Your task to perform on an android device: Search for logitech g pro on bestbuy.com, select the first entry, and add it to the cart. Image 0: 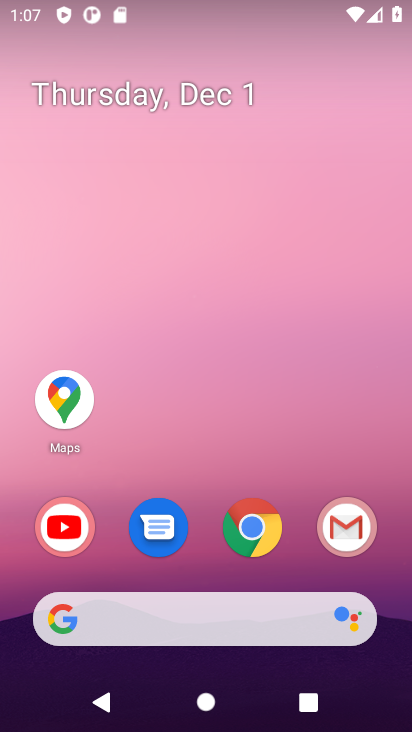
Step 0: click (248, 539)
Your task to perform on an android device: Search for logitech g pro on bestbuy.com, select the first entry, and add it to the cart. Image 1: 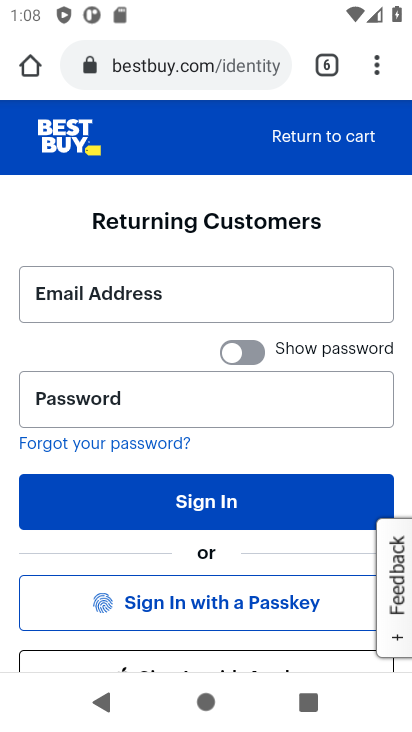
Step 1: press back button
Your task to perform on an android device: Search for logitech g pro on bestbuy.com, select the first entry, and add it to the cart. Image 2: 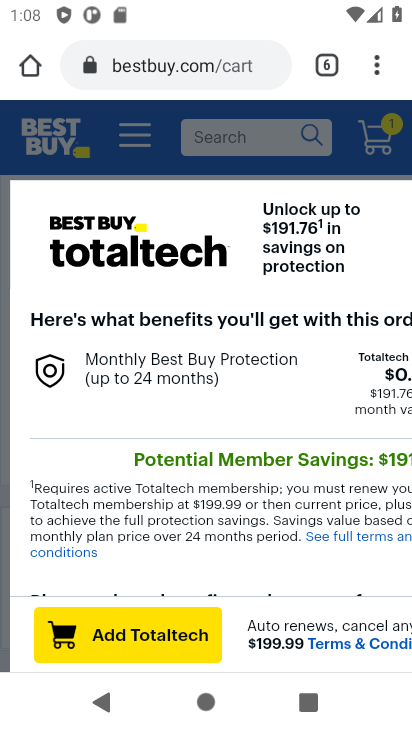
Step 2: click (258, 148)
Your task to perform on an android device: Search for logitech g pro on bestbuy.com, select the first entry, and add it to the cart. Image 3: 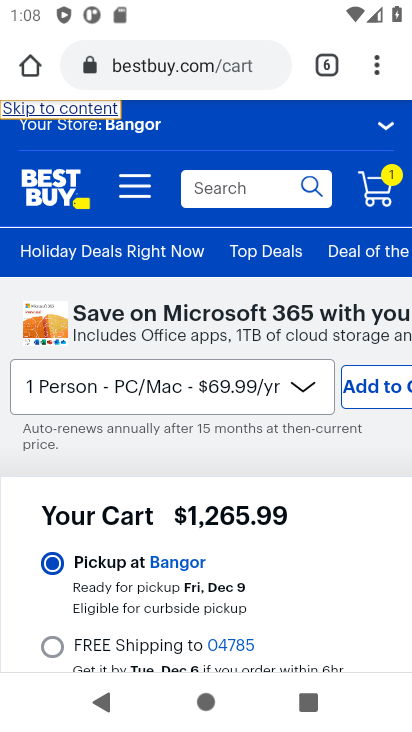
Step 3: click (205, 191)
Your task to perform on an android device: Search for logitech g pro on bestbuy.com, select the first entry, and add it to the cart. Image 4: 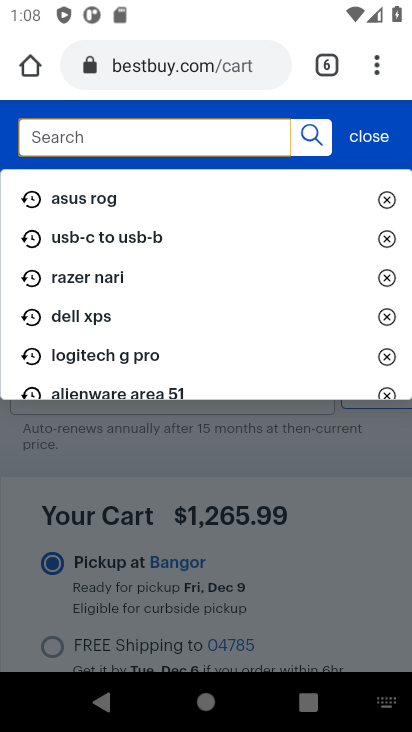
Step 4: type "logitech g pro "
Your task to perform on an android device: Search for logitech g pro on bestbuy.com, select the first entry, and add it to the cart. Image 5: 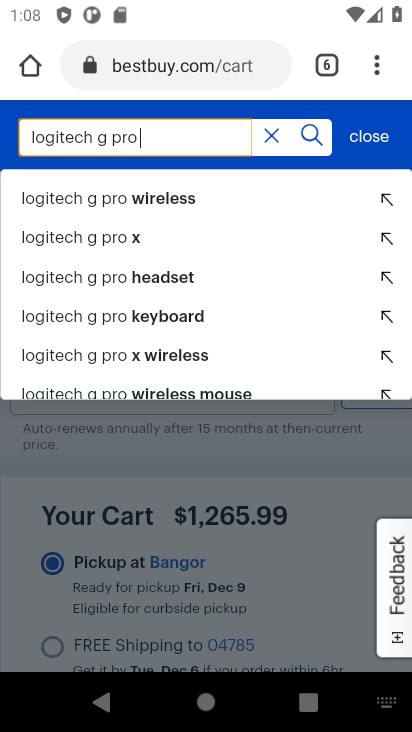
Step 5: click (311, 137)
Your task to perform on an android device: Search for logitech g pro on bestbuy.com, select the first entry, and add it to the cart. Image 6: 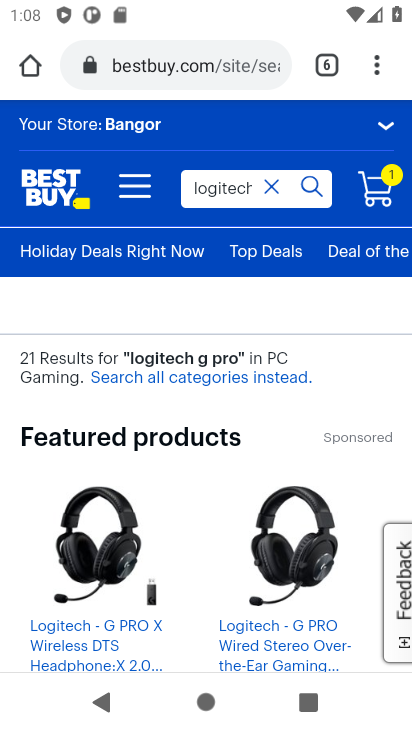
Step 6: drag from (205, 522) to (195, 263)
Your task to perform on an android device: Search for logitech g pro on bestbuy.com, select the first entry, and add it to the cart. Image 7: 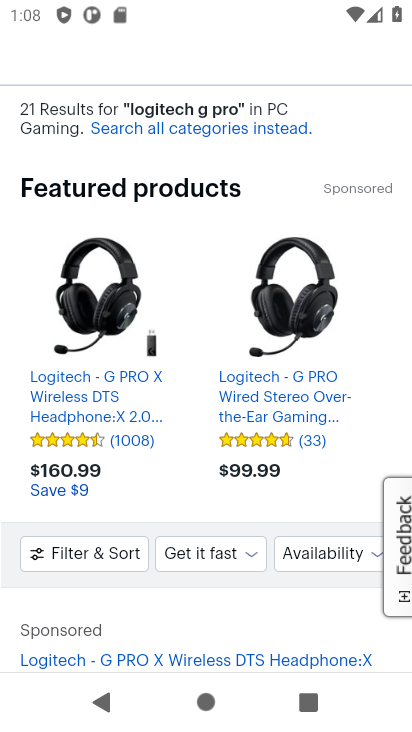
Step 7: drag from (202, 430) to (194, 278)
Your task to perform on an android device: Search for logitech g pro on bestbuy.com, select the first entry, and add it to the cart. Image 8: 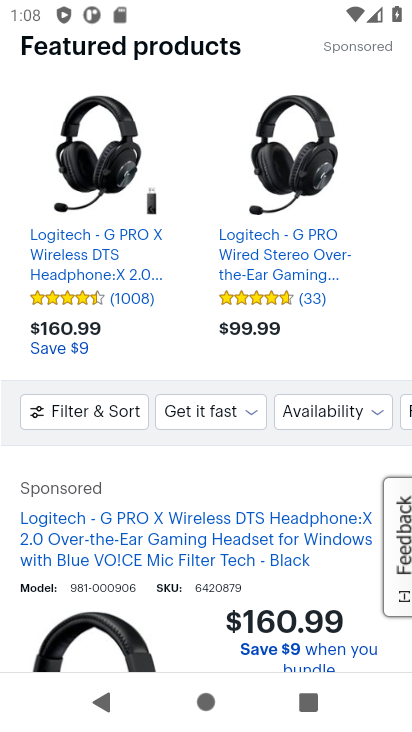
Step 8: drag from (196, 447) to (168, 230)
Your task to perform on an android device: Search for logitech g pro on bestbuy.com, select the first entry, and add it to the cart. Image 9: 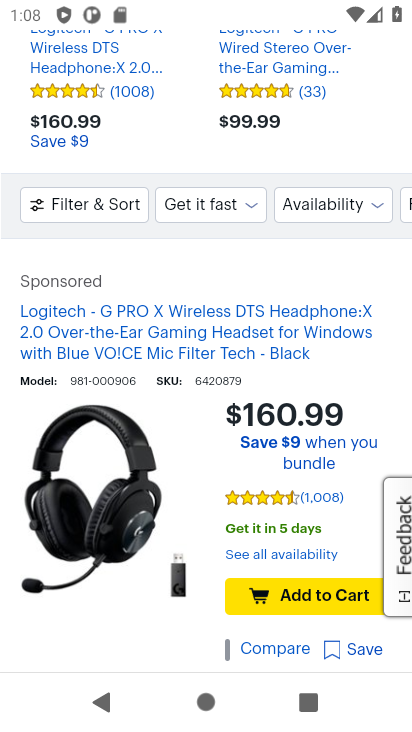
Step 9: click (313, 595)
Your task to perform on an android device: Search for logitech g pro on bestbuy.com, select the first entry, and add it to the cart. Image 10: 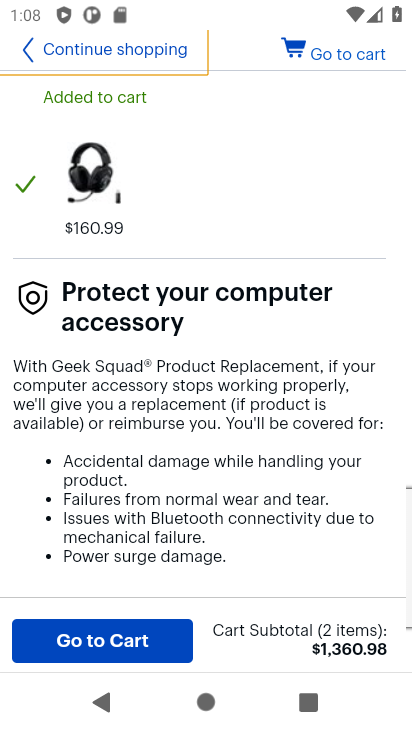
Step 10: task complete